Your task to perform on an android device: What's on my calendar today? Image 0: 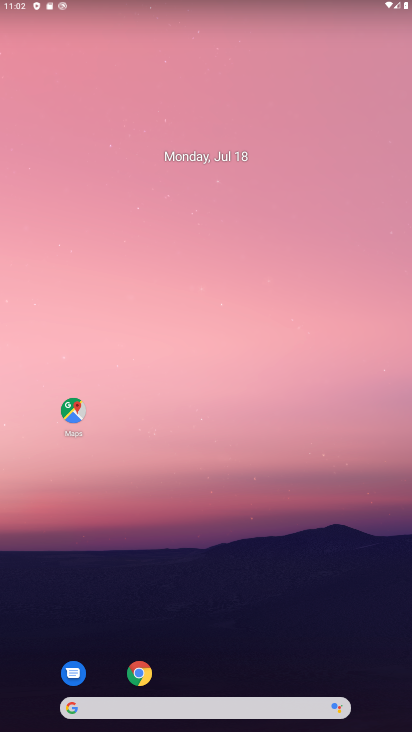
Step 0: drag from (233, 678) to (240, 87)
Your task to perform on an android device: What's on my calendar today? Image 1: 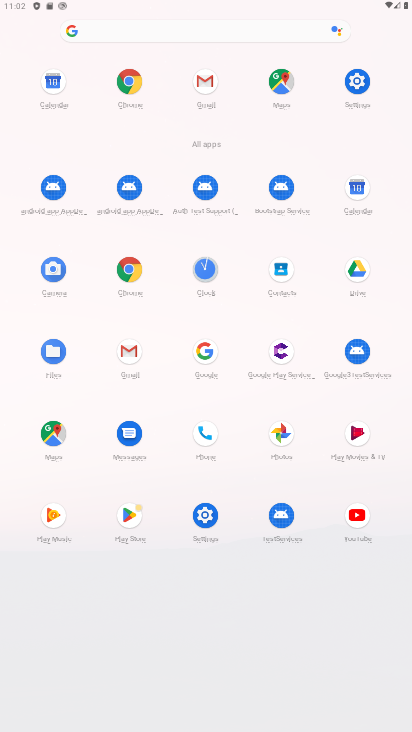
Step 1: click (357, 185)
Your task to perform on an android device: What's on my calendar today? Image 2: 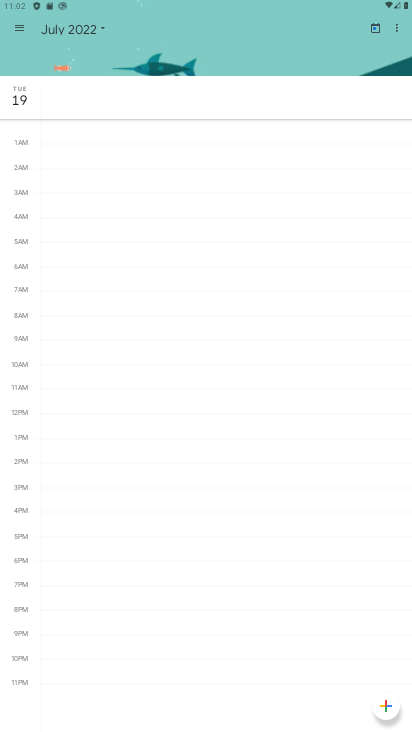
Step 2: click (29, 106)
Your task to perform on an android device: What's on my calendar today? Image 3: 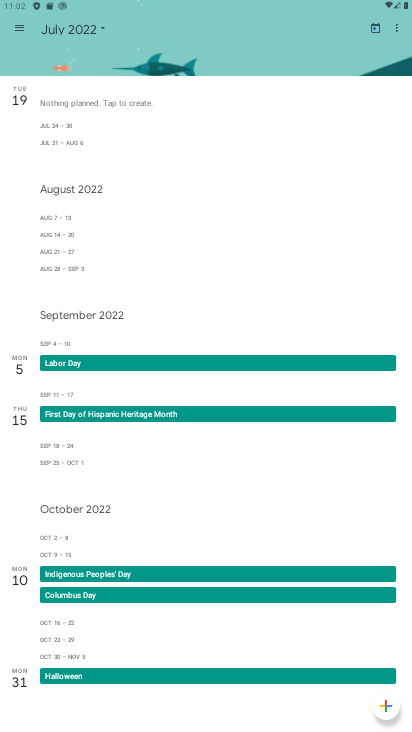
Step 3: click (102, 27)
Your task to perform on an android device: What's on my calendar today? Image 4: 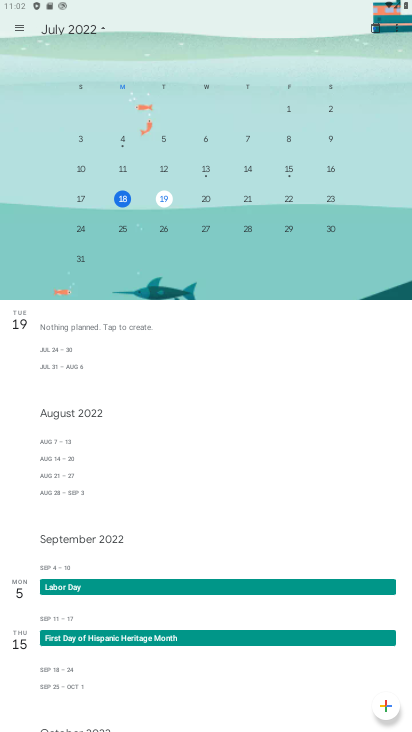
Step 4: click (123, 198)
Your task to perform on an android device: What's on my calendar today? Image 5: 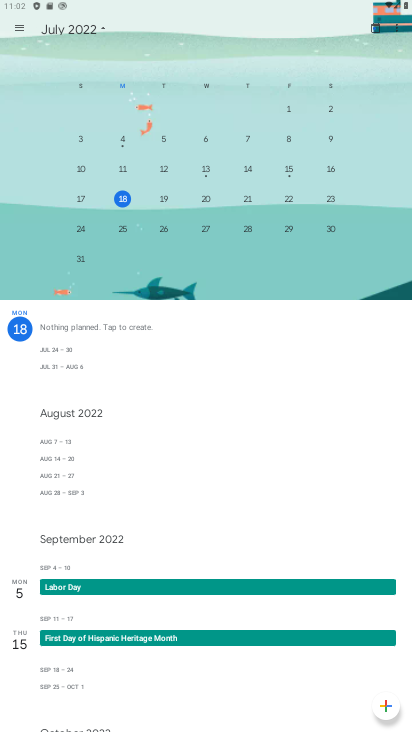
Step 5: click (27, 324)
Your task to perform on an android device: What's on my calendar today? Image 6: 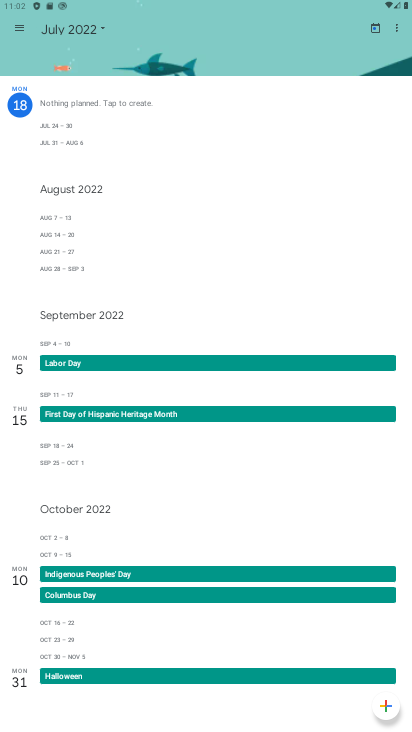
Step 6: click (27, 102)
Your task to perform on an android device: What's on my calendar today? Image 7: 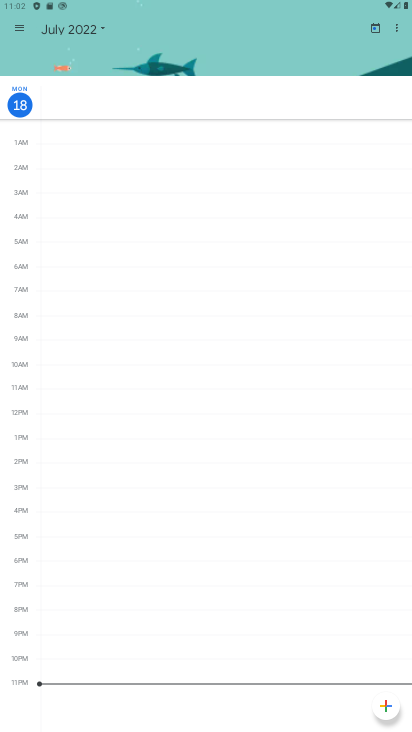
Step 7: task complete